Your task to perform on an android device: open a new tab in the chrome app Image 0: 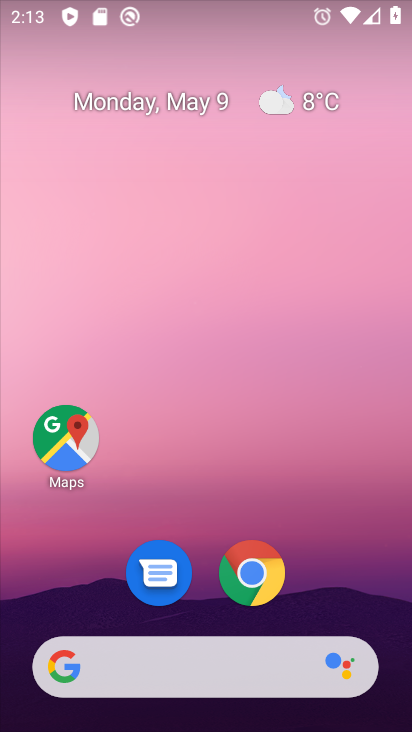
Step 0: drag from (132, 674) to (283, 287)
Your task to perform on an android device: open a new tab in the chrome app Image 1: 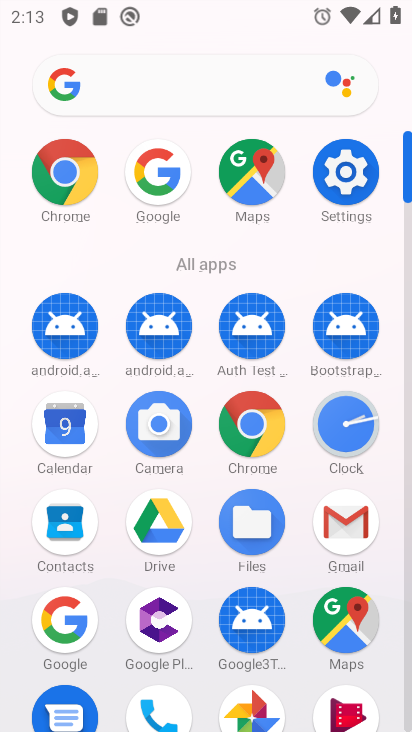
Step 1: click (79, 193)
Your task to perform on an android device: open a new tab in the chrome app Image 2: 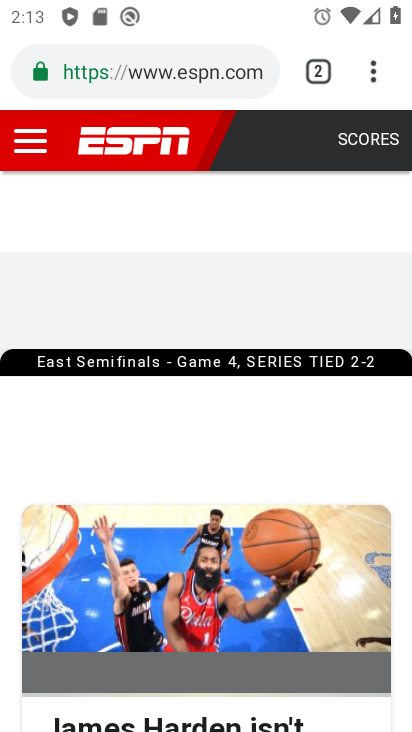
Step 2: task complete